Your task to perform on an android device: Search for sushi restaurants on Maps Image 0: 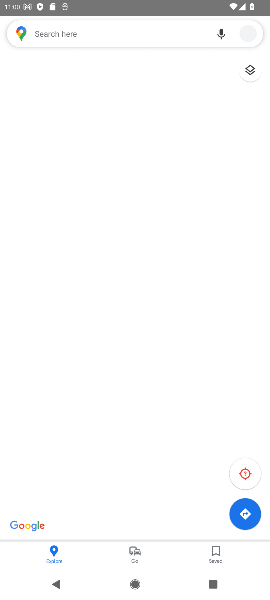
Step 0: click (163, 489)
Your task to perform on an android device: Search for sushi restaurants on Maps Image 1: 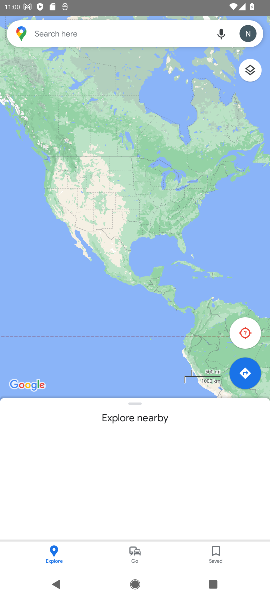
Step 1: press home button
Your task to perform on an android device: Search for sushi restaurants on Maps Image 2: 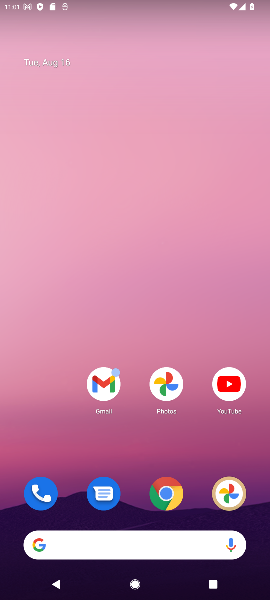
Step 2: drag from (132, 535) to (98, 177)
Your task to perform on an android device: Search for sushi restaurants on Maps Image 3: 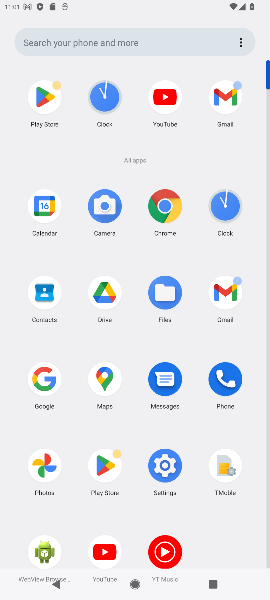
Step 3: click (106, 379)
Your task to perform on an android device: Search for sushi restaurants on Maps Image 4: 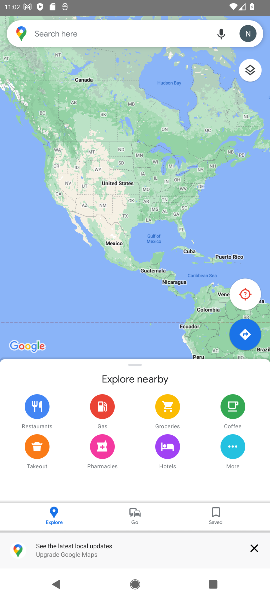
Step 4: click (63, 35)
Your task to perform on an android device: Search for sushi restaurants on Maps Image 5: 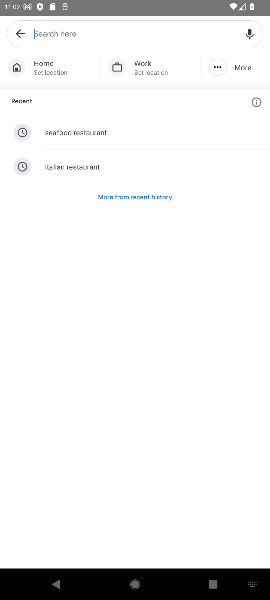
Step 5: click (106, 196)
Your task to perform on an android device: Search for sushi restaurants on Maps Image 6: 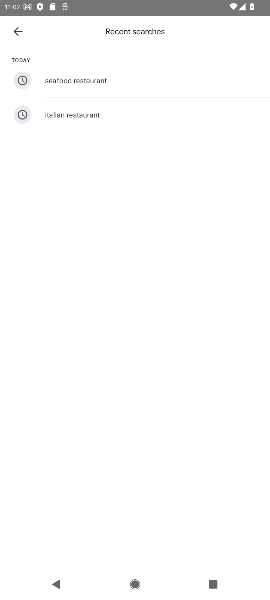
Step 6: click (20, 26)
Your task to perform on an android device: Search for sushi restaurants on Maps Image 7: 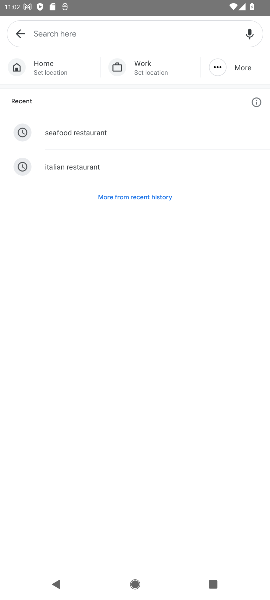
Step 7: click (43, 36)
Your task to perform on an android device: Search for sushi restaurants on Maps Image 8: 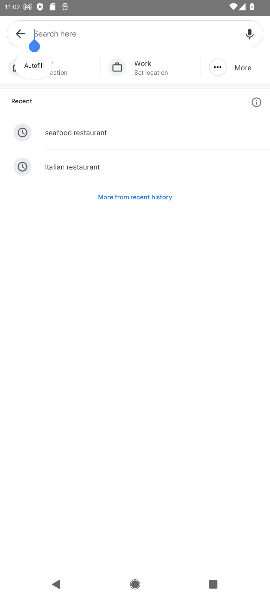
Step 8: type " sushi restaurants"
Your task to perform on an android device: Search for sushi restaurants on Maps Image 9: 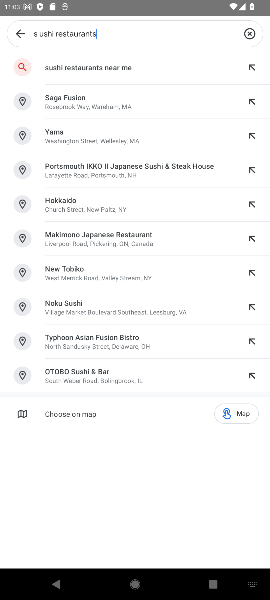
Step 9: click (89, 70)
Your task to perform on an android device: Search for sushi restaurants on Maps Image 10: 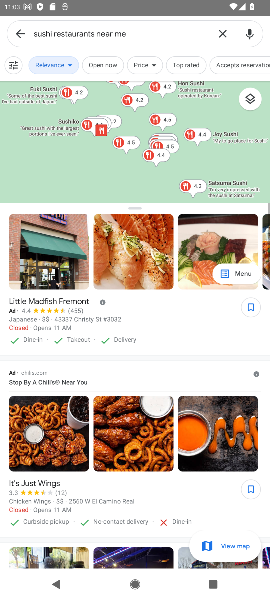
Step 10: task complete